Your task to perform on an android device: turn off notifications settings in the gmail app Image 0: 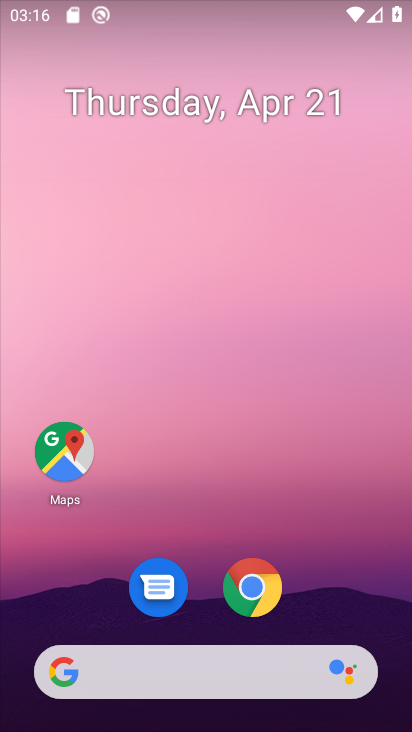
Step 0: drag from (363, 596) to (382, 174)
Your task to perform on an android device: turn off notifications settings in the gmail app Image 1: 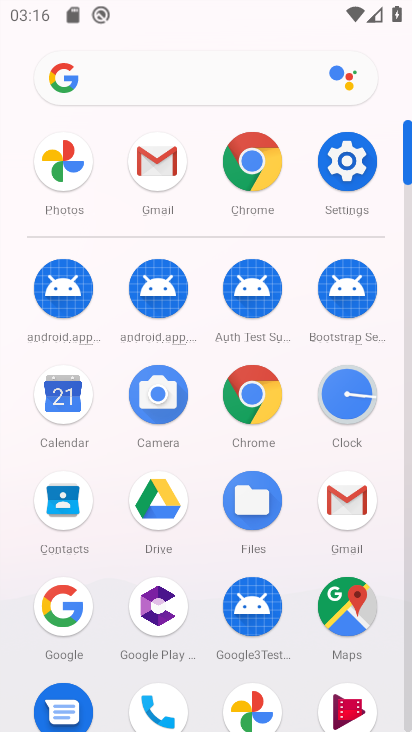
Step 1: click (359, 506)
Your task to perform on an android device: turn off notifications settings in the gmail app Image 2: 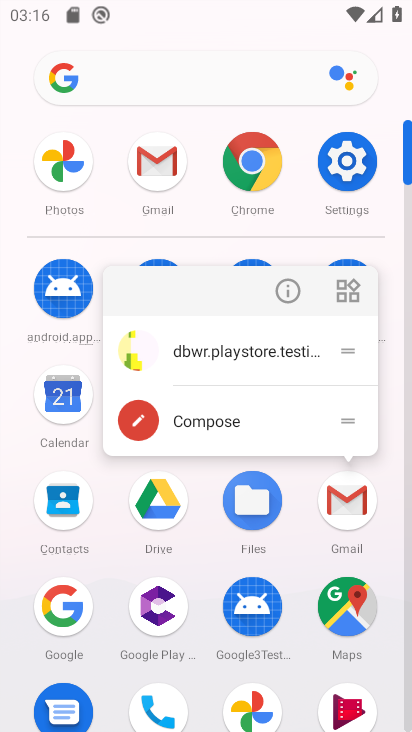
Step 2: click (359, 507)
Your task to perform on an android device: turn off notifications settings in the gmail app Image 3: 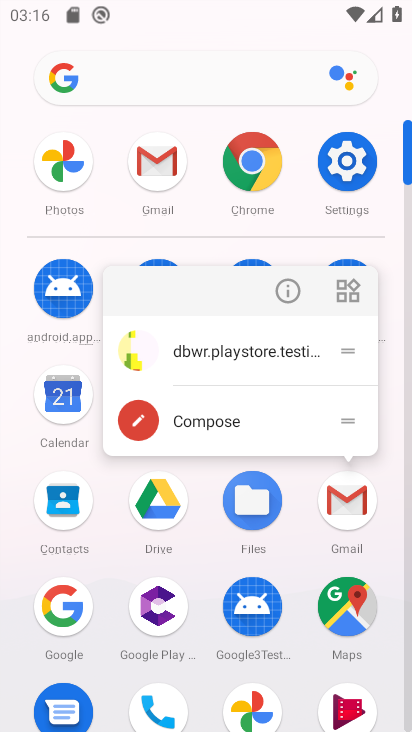
Step 3: click (336, 497)
Your task to perform on an android device: turn off notifications settings in the gmail app Image 4: 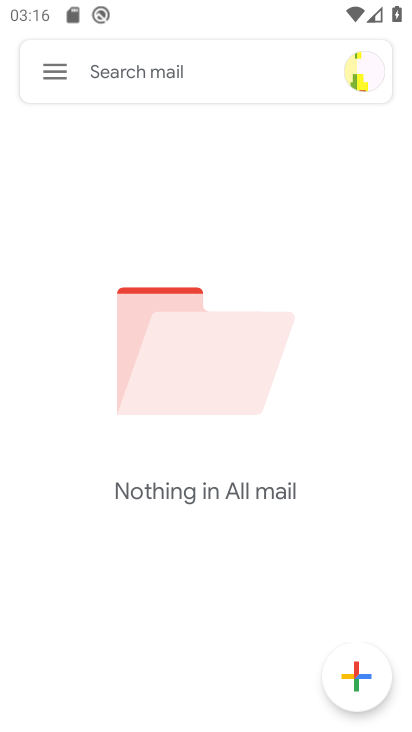
Step 4: click (44, 73)
Your task to perform on an android device: turn off notifications settings in the gmail app Image 5: 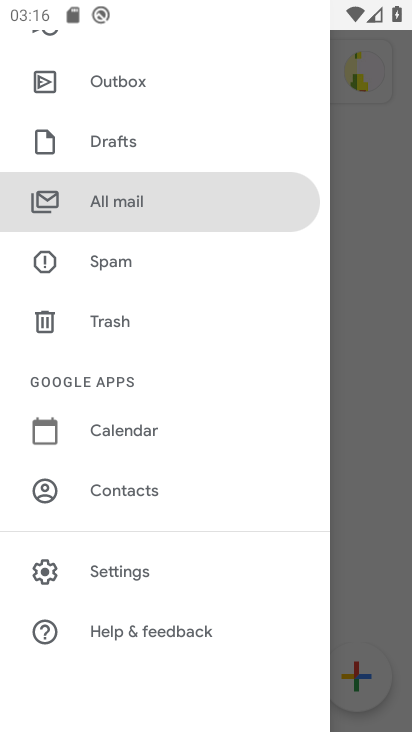
Step 5: drag from (274, 351) to (271, 482)
Your task to perform on an android device: turn off notifications settings in the gmail app Image 6: 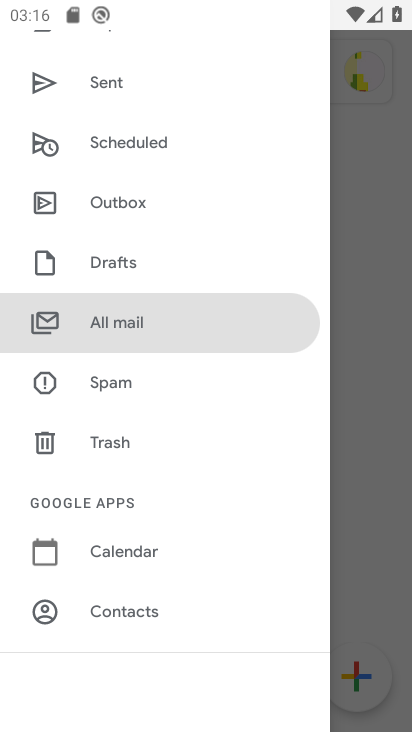
Step 6: drag from (267, 380) to (270, 438)
Your task to perform on an android device: turn off notifications settings in the gmail app Image 7: 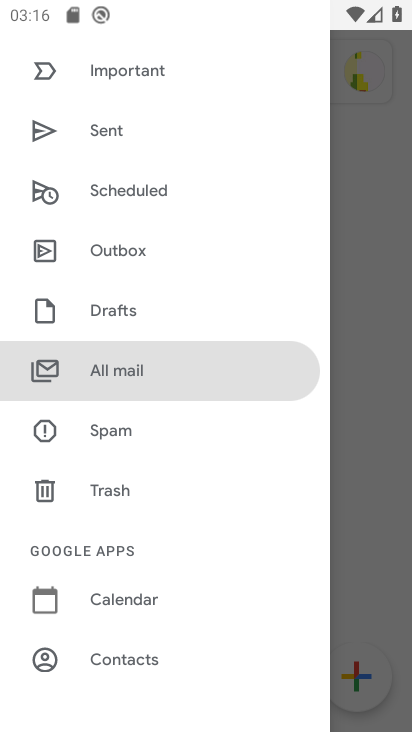
Step 7: drag from (282, 278) to (283, 405)
Your task to perform on an android device: turn off notifications settings in the gmail app Image 8: 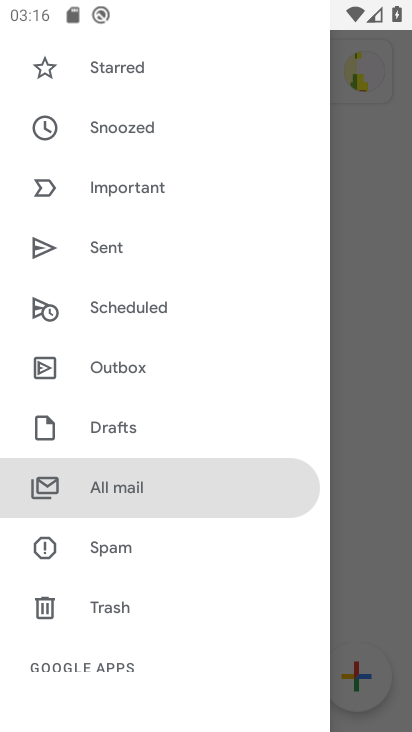
Step 8: drag from (264, 276) to (258, 340)
Your task to perform on an android device: turn off notifications settings in the gmail app Image 9: 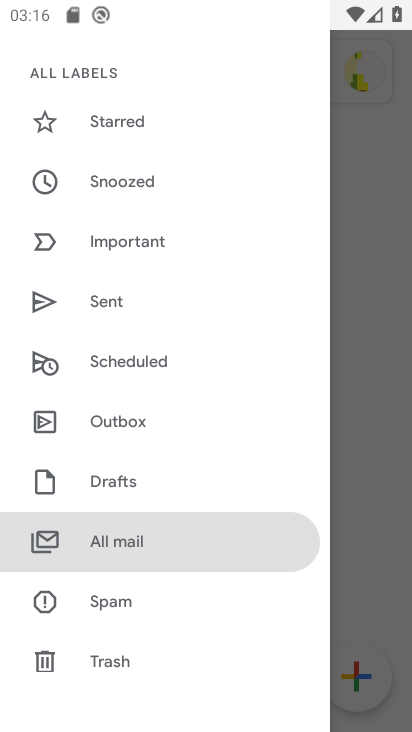
Step 9: drag from (264, 270) to (280, 401)
Your task to perform on an android device: turn off notifications settings in the gmail app Image 10: 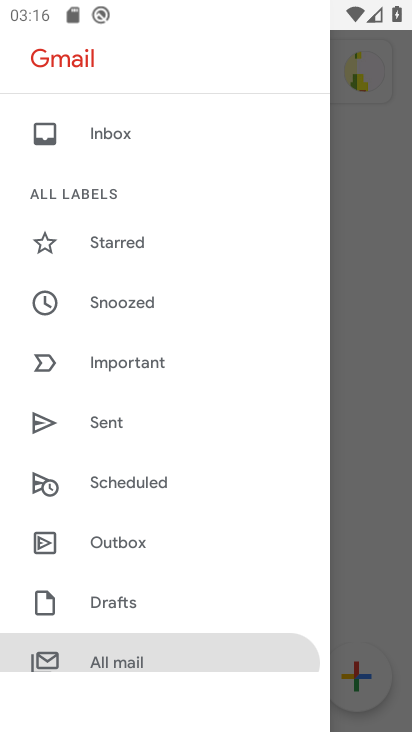
Step 10: drag from (257, 527) to (256, 342)
Your task to perform on an android device: turn off notifications settings in the gmail app Image 11: 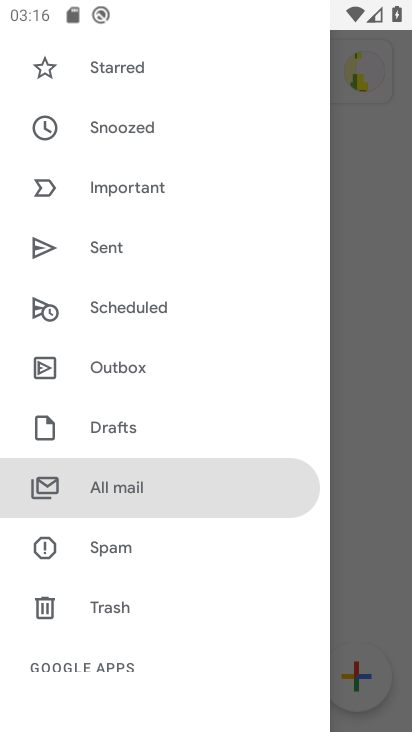
Step 11: drag from (250, 585) to (265, 385)
Your task to perform on an android device: turn off notifications settings in the gmail app Image 12: 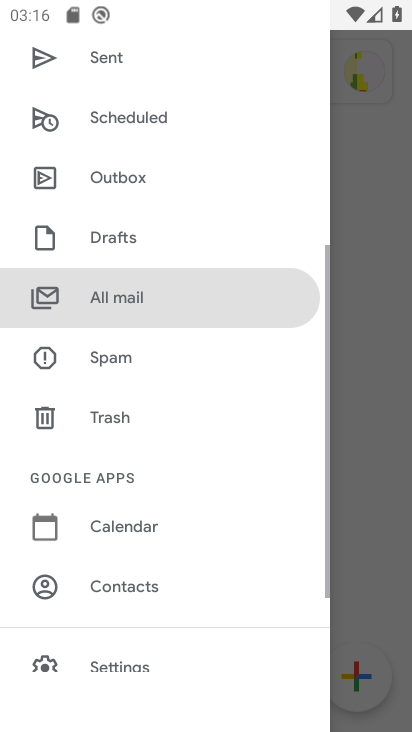
Step 12: drag from (276, 581) to (279, 434)
Your task to perform on an android device: turn off notifications settings in the gmail app Image 13: 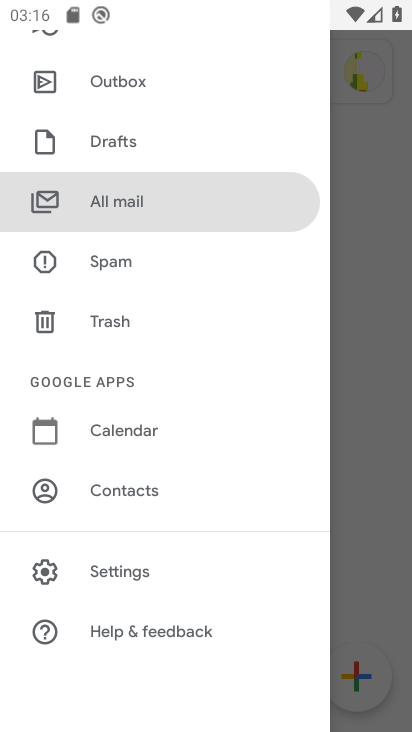
Step 13: click (157, 572)
Your task to perform on an android device: turn off notifications settings in the gmail app Image 14: 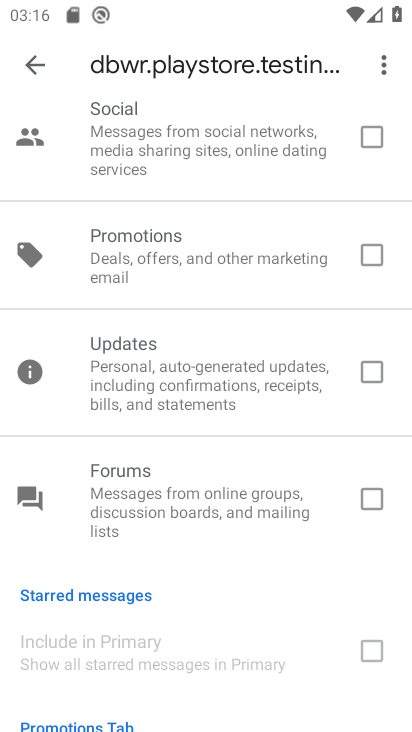
Step 14: click (36, 75)
Your task to perform on an android device: turn off notifications settings in the gmail app Image 15: 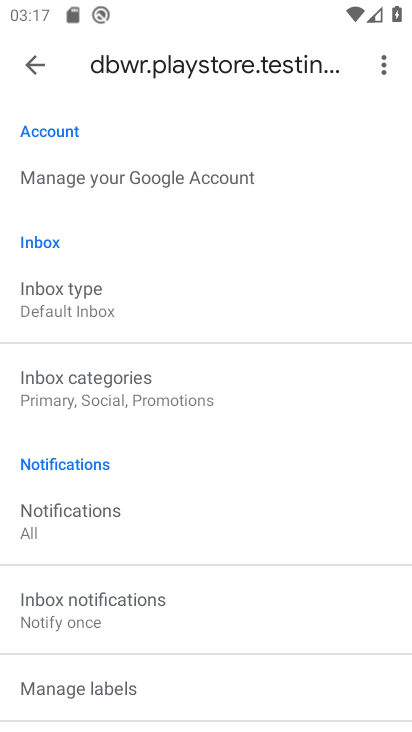
Step 15: drag from (295, 269) to (301, 339)
Your task to perform on an android device: turn off notifications settings in the gmail app Image 16: 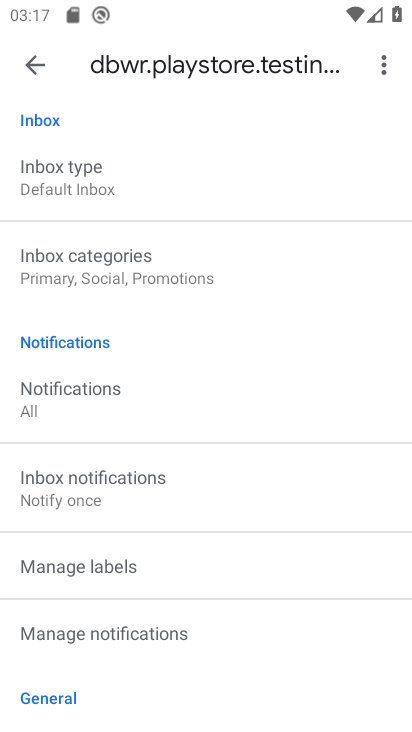
Step 16: drag from (297, 437) to (304, 331)
Your task to perform on an android device: turn off notifications settings in the gmail app Image 17: 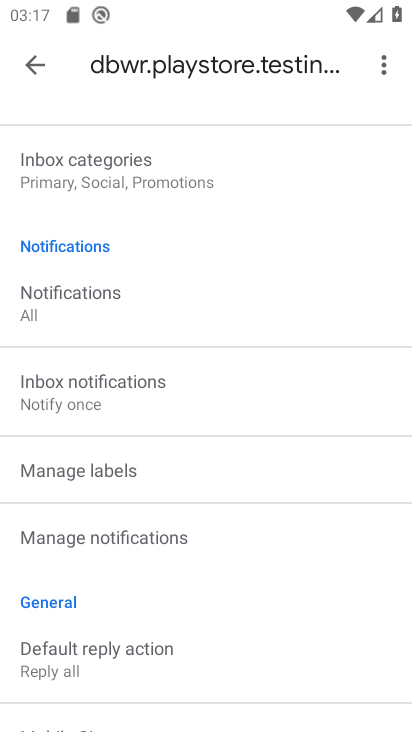
Step 17: drag from (302, 452) to (305, 384)
Your task to perform on an android device: turn off notifications settings in the gmail app Image 18: 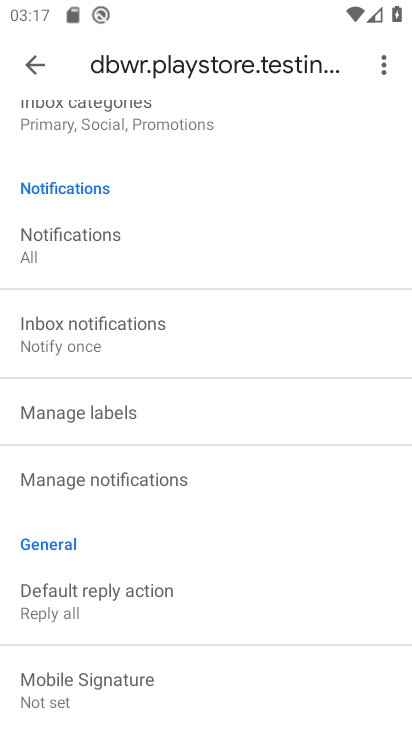
Step 18: drag from (292, 514) to (303, 359)
Your task to perform on an android device: turn off notifications settings in the gmail app Image 19: 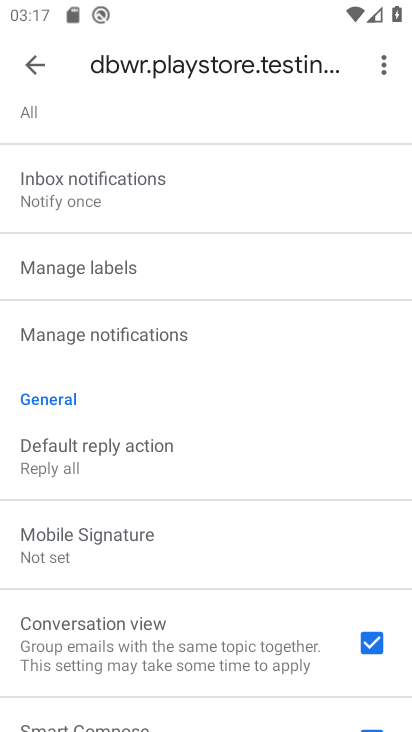
Step 19: drag from (323, 514) to (321, 398)
Your task to perform on an android device: turn off notifications settings in the gmail app Image 20: 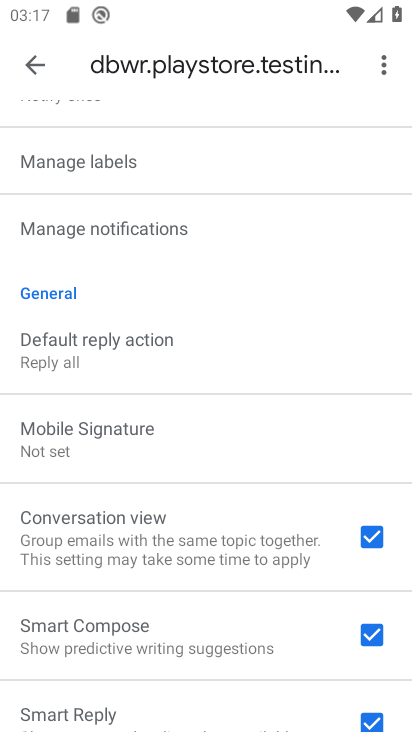
Step 20: click (215, 235)
Your task to perform on an android device: turn off notifications settings in the gmail app Image 21: 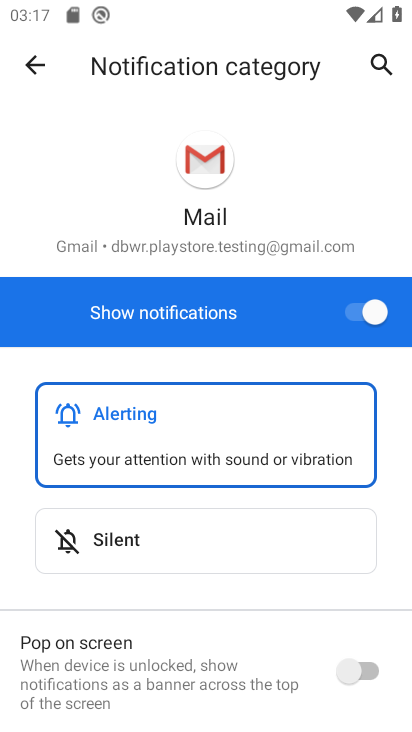
Step 21: click (364, 320)
Your task to perform on an android device: turn off notifications settings in the gmail app Image 22: 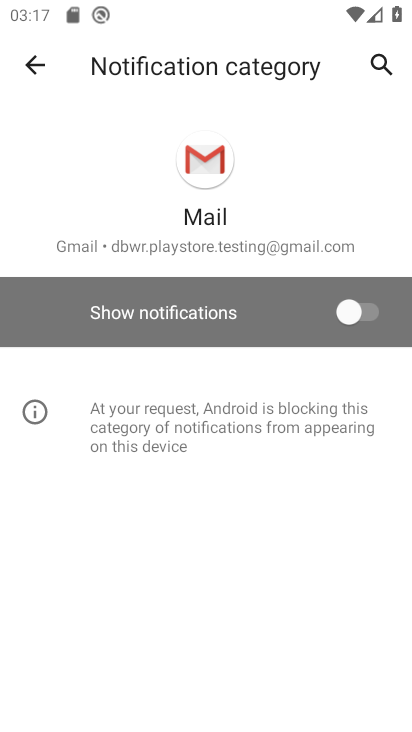
Step 22: task complete